Your task to perform on an android device: Show me popular videos on Youtube Image 0: 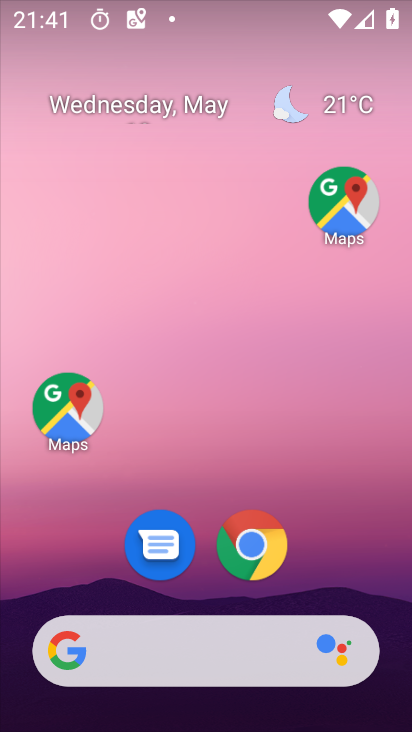
Step 0: drag from (307, 583) to (275, 117)
Your task to perform on an android device: Show me popular videos on Youtube Image 1: 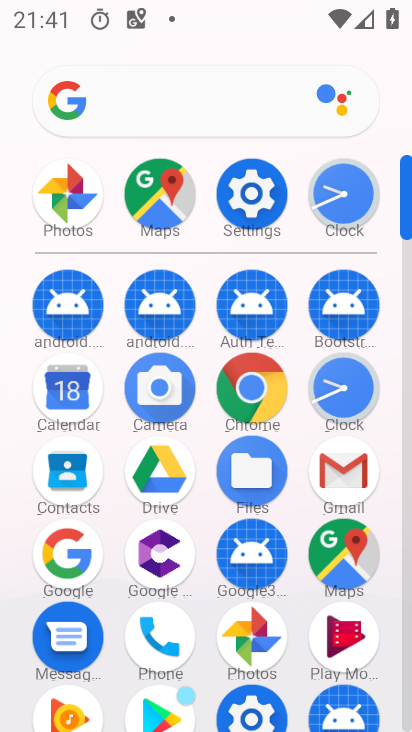
Step 1: drag from (204, 607) to (214, 273)
Your task to perform on an android device: Show me popular videos on Youtube Image 2: 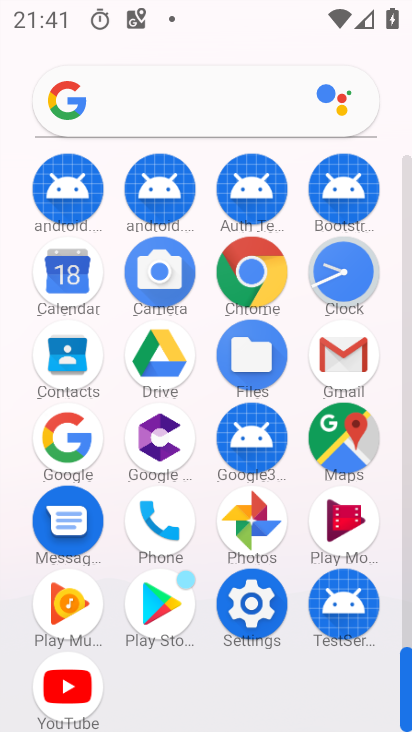
Step 2: click (54, 677)
Your task to perform on an android device: Show me popular videos on Youtube Image 3: 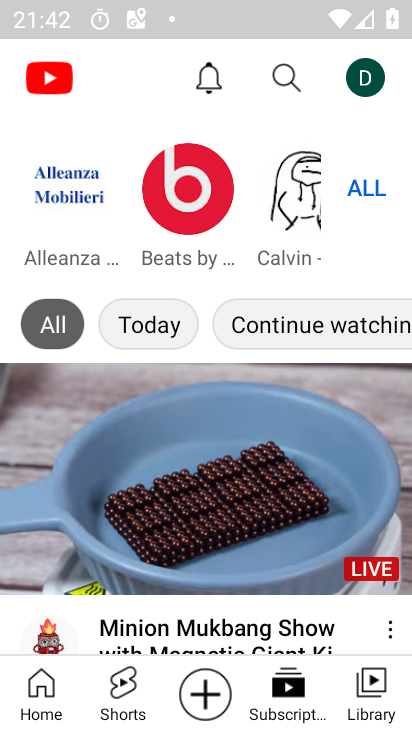
Step 3: click (39, 709)
Your task to perform on an android device: Show me popular videos on Youtube Image 4: 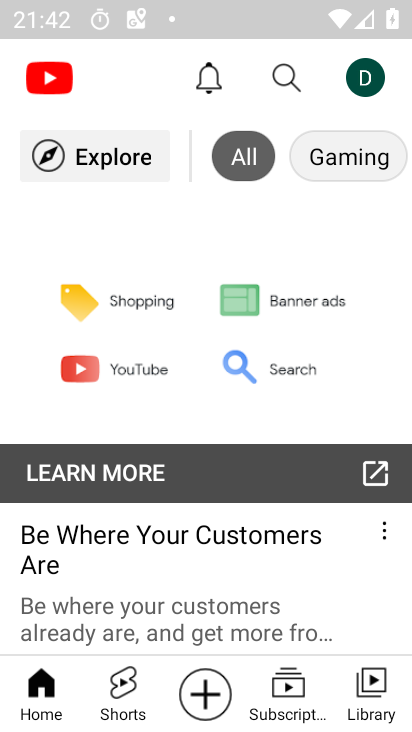
Step 4: click (88, 155)
Your task to perform on an android device: Show me popular videos on Youtube Image 5: 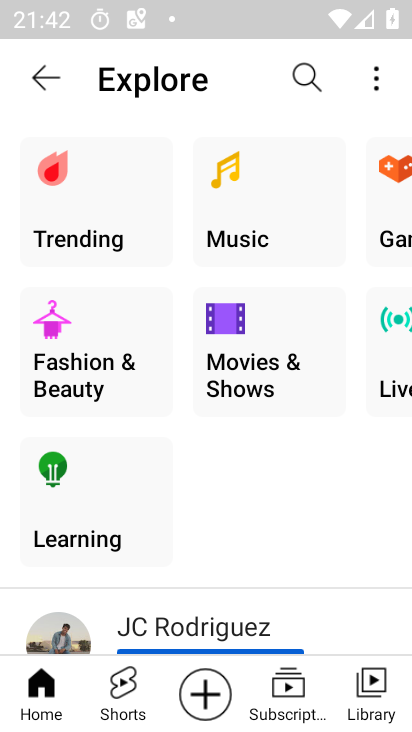
Step 5: click (123, 209)
Your task to perform on an android device: Show me popular videos on Youtube Image 6: 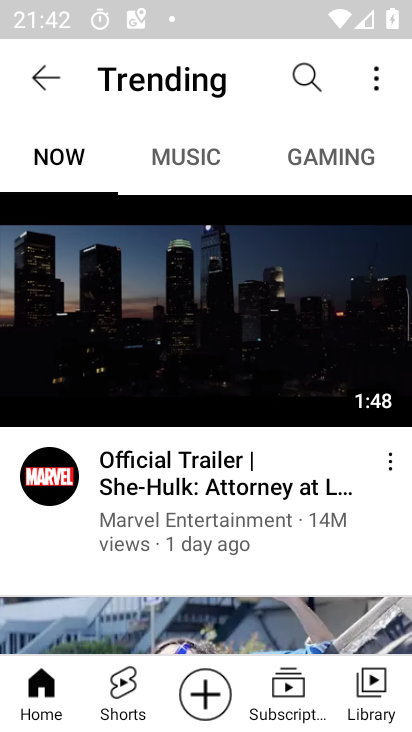
Step 6: task complete